Your task to perform on an android device: see sites visited before in the chrome app Image 0: 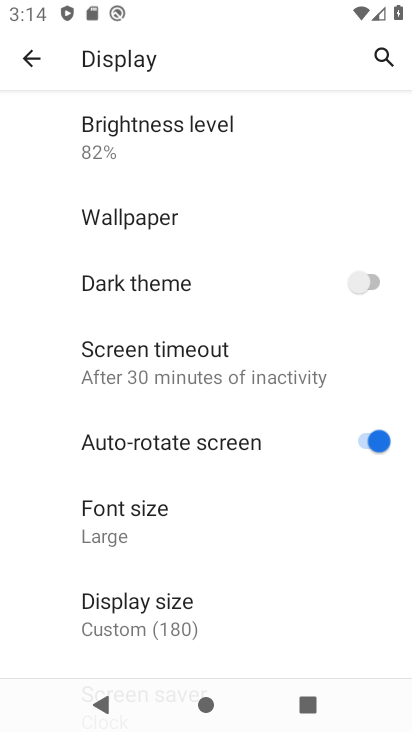
Step 0: press home button
Your task to perform on an android device: see sites visited before in the chrome app Image 1: 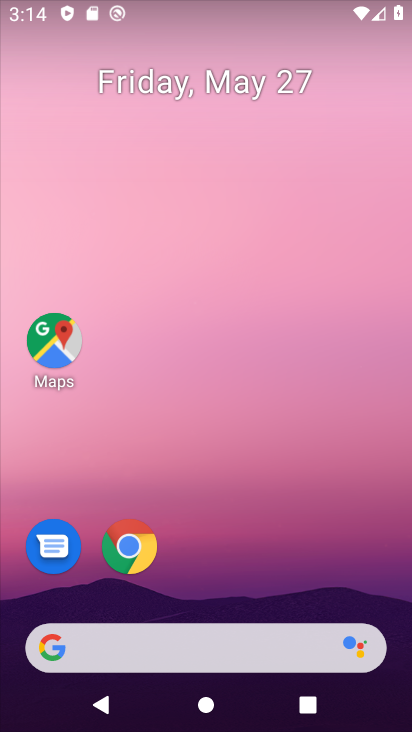
Step 1: click (127, 548)
Your task to perform on an android device: see sites visited before in the chrome app Image 2: 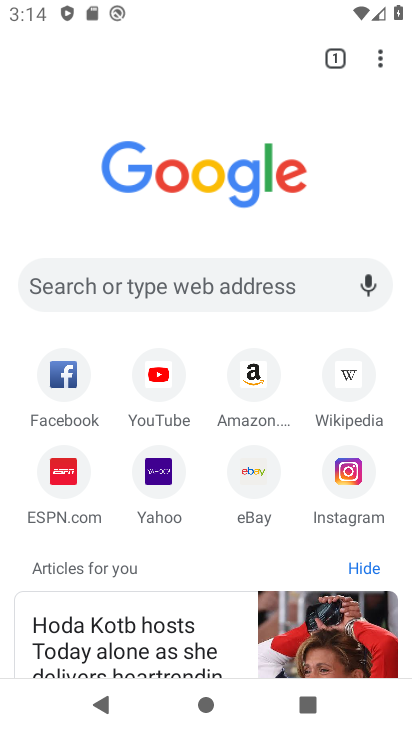
Step 2: task complete